Your task to perform on an android device: turn off improve location accuracy Image 0: 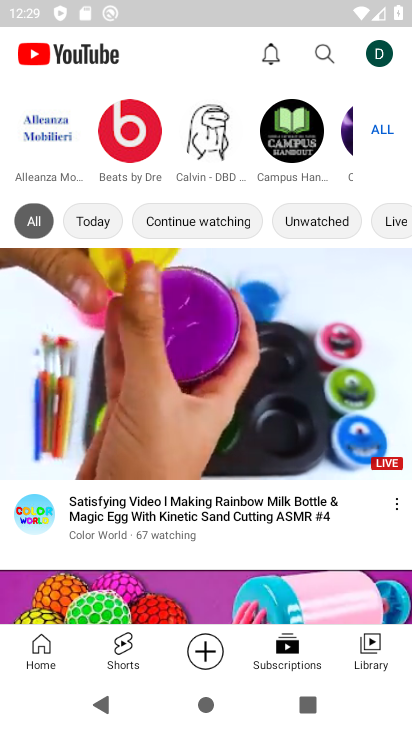
Step 0: press home button
Your task to perform on an android device: turn off improve location accuracy Image 1: 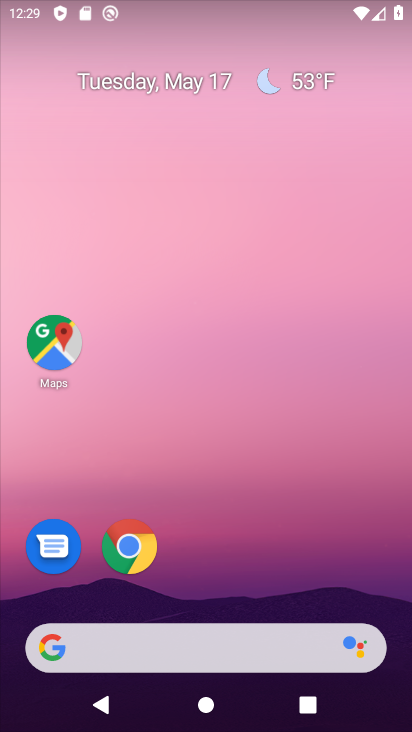
Step 1: drag from (238, 588) to (274, 205)
Your task to perform on an android device: turn off improve location accuracy Image 2: 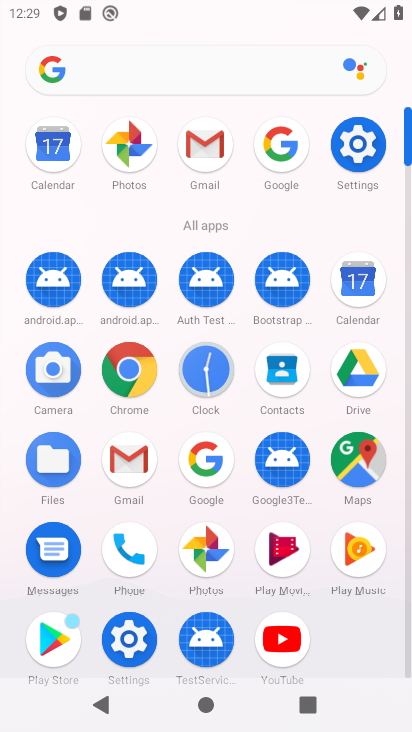
Step 2: click (342, 140)
Your task to perform on an android device: turn off improve location accuracy Image 3: 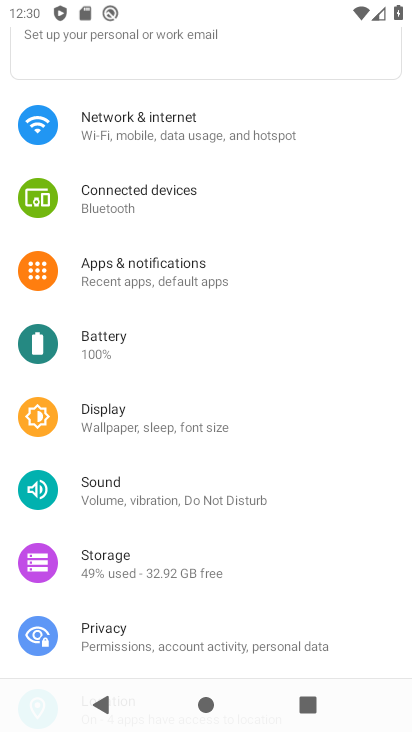
Step 3: drag from (185, 558) to (234, 361)
Your task to perform on an android device: turn off improve location accuracy Image 4: 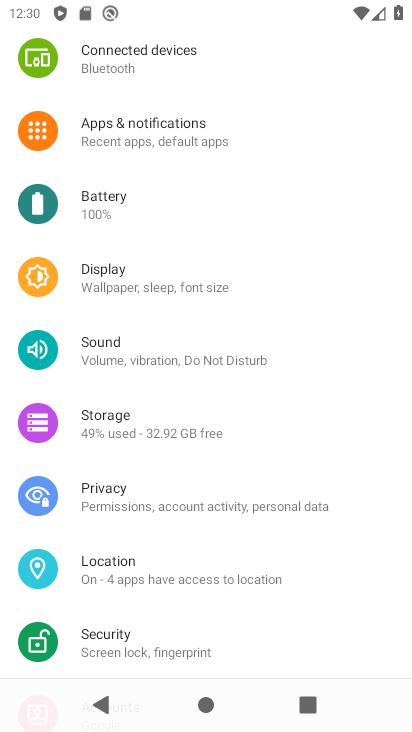
Step 4: click (152, 565)
Your task to perform on an android device: turn off improve location accuracy Image 5: 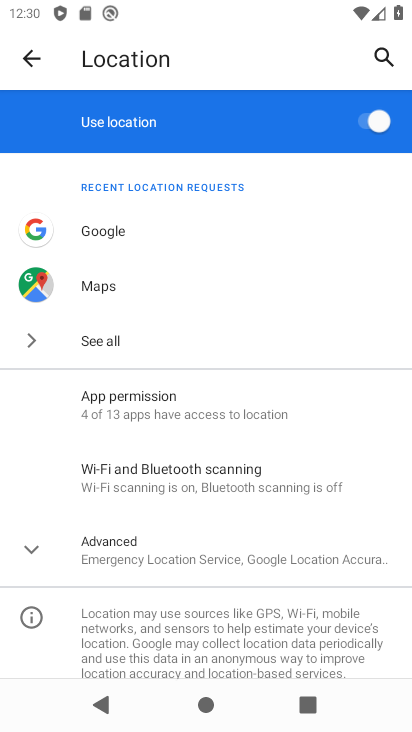
Step 5: click (161, 553)
Your task to perform on an android device: turn off improve location accuracy Image 6: 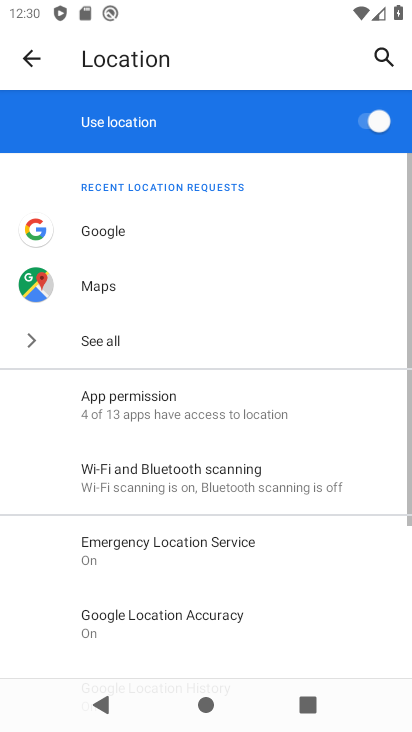
Step 6: drag from (201, 551) to (244, 401)
Your task to perform on an android device: turn off improve location accuracy Image 7: 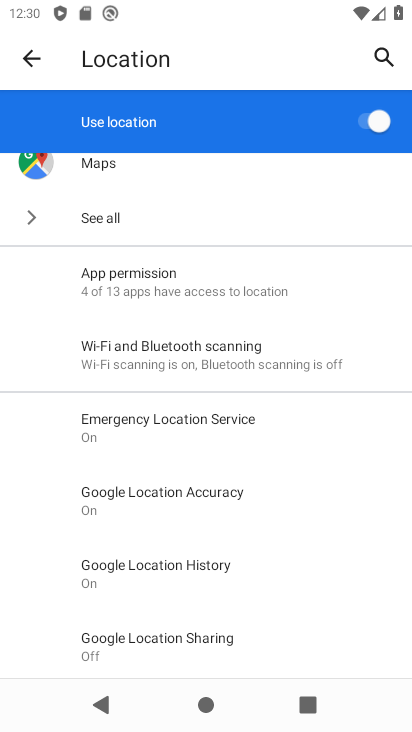
Step 7: click (214, 509)
Your task to perform on an android device: turn off improve location accuracy Image 8: 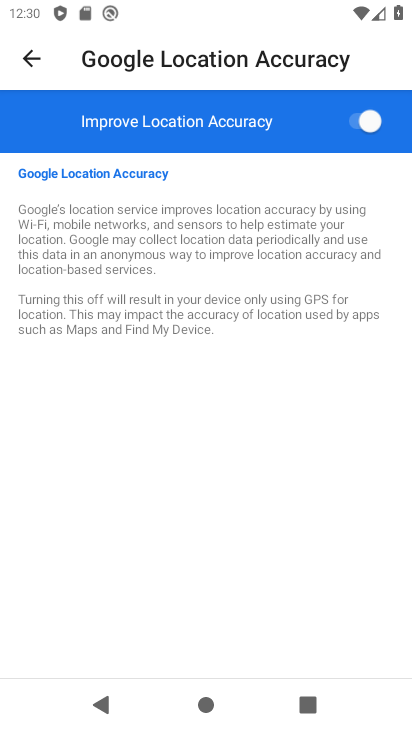
Step 8: click (364, 113)
Your task to perform on an android device: turn off improve location accuracy Image 9: 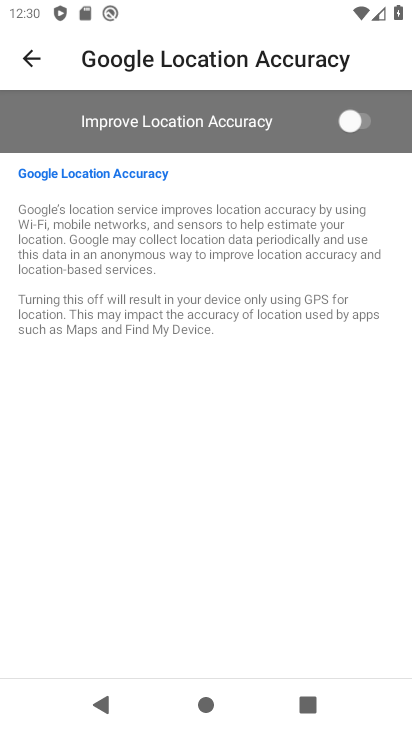
Step 9: task complete